Your task to perform on an android device: clear all cookies in the chrome app Image 0: 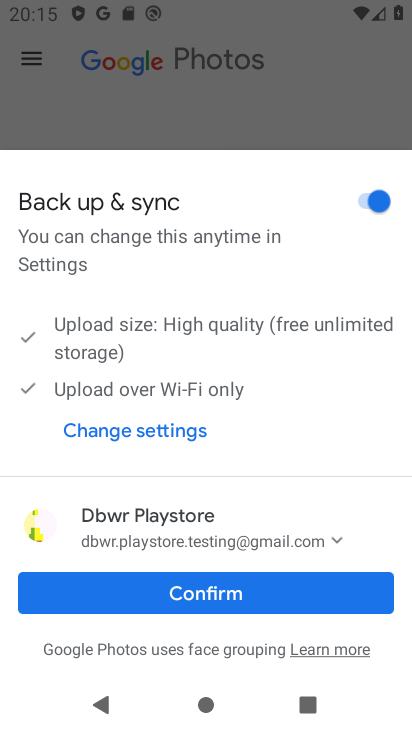
Step 0: press home button
Your task to perform on an android device: clear all cookies in the chrome app Image 1: 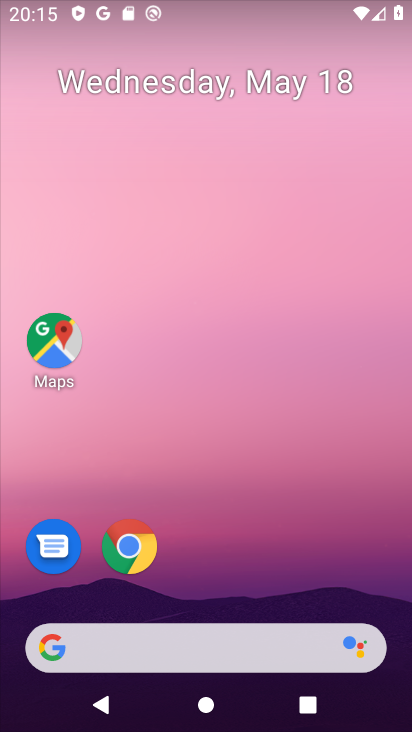
Step 1: click (136, 559)
Your task to perform on an android device: clear all cookies in the chrome app Image 2: 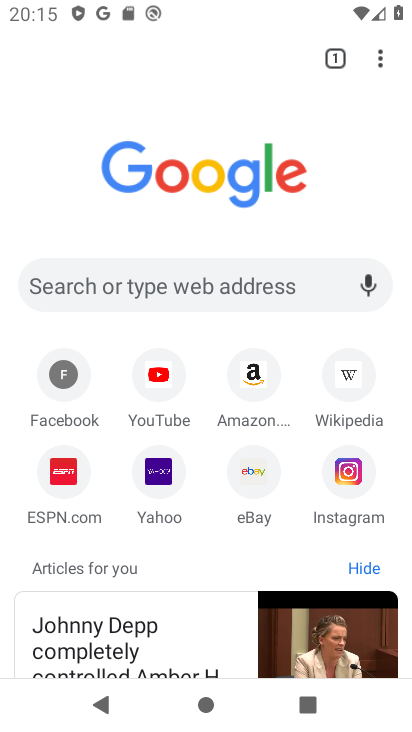
Step 2: click (390, 68)
Your task to perform on an android device: clear all cookies in the chrome app Image 3: 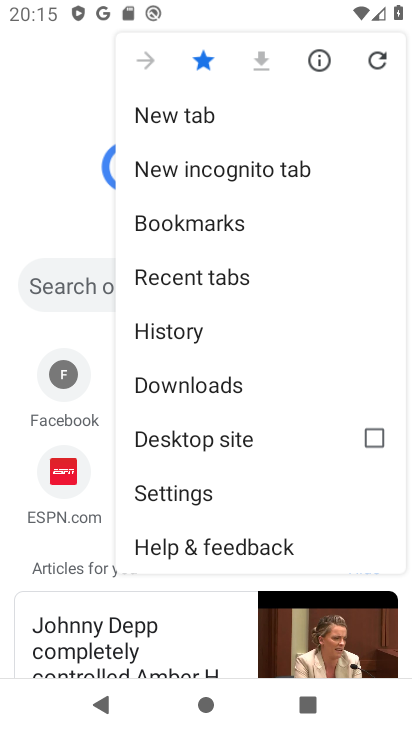
Step 3: click (268, 319)
Your task to perform on an android device: clear all cookies in the chrome app Image 4: 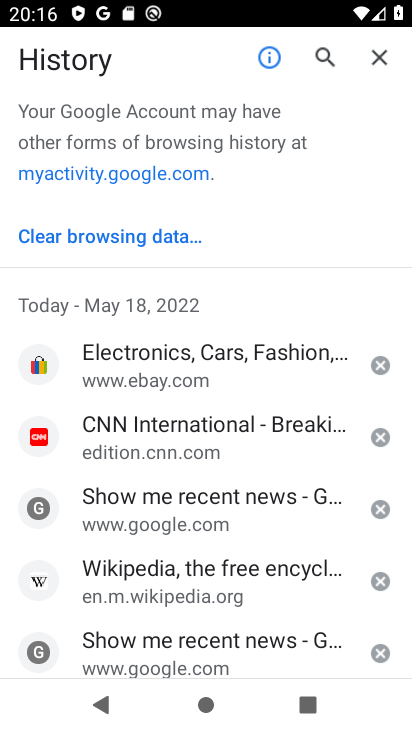
Step 4: click (177, 235)
Your task to perform on an android device: clear all cookies in the chrome app Image 5: 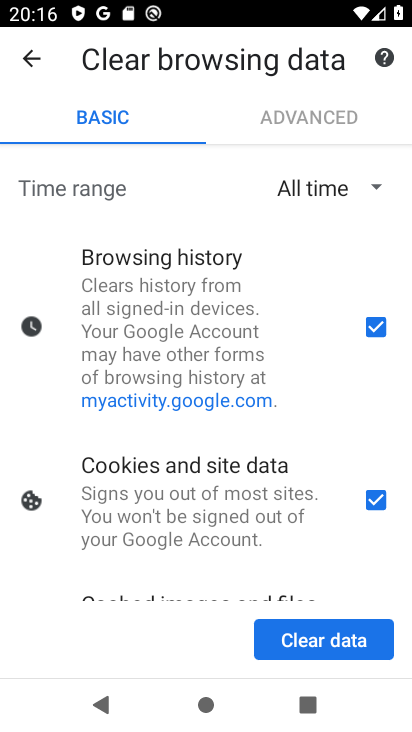
Step 5: click (378, 336)
Your task to perform on an android device: clear all cookies in the chrome app Image 6: 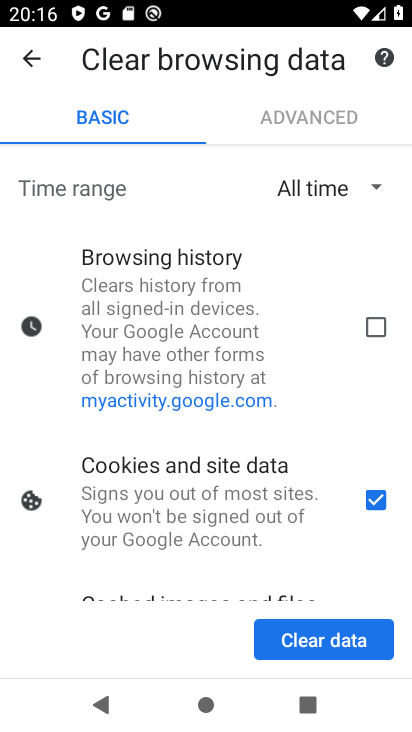
Step 6: click (347, 642)
Your task to perform on an android device: clear all cookies in the chrome app Image 7: 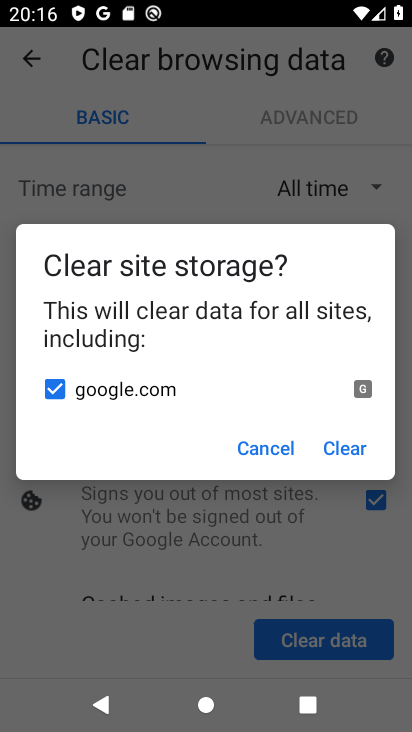
Step 7: click (348, 442)
Your task to perform on an android device: clear all cookies in the chrome app Image 8: 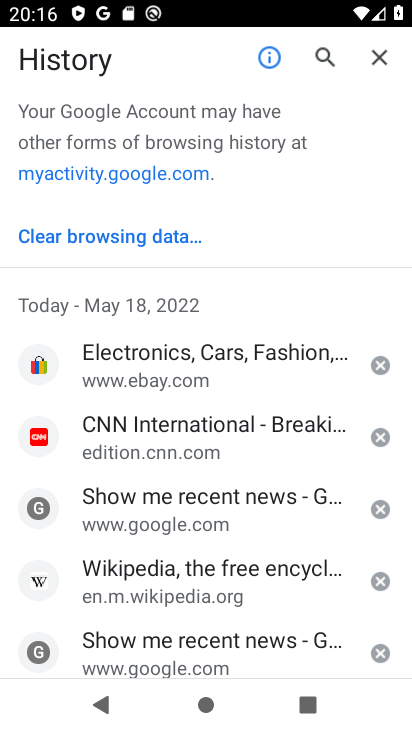
Step 8: task complete